Your task to perform on an android device: Open Wikipedia Image 0: 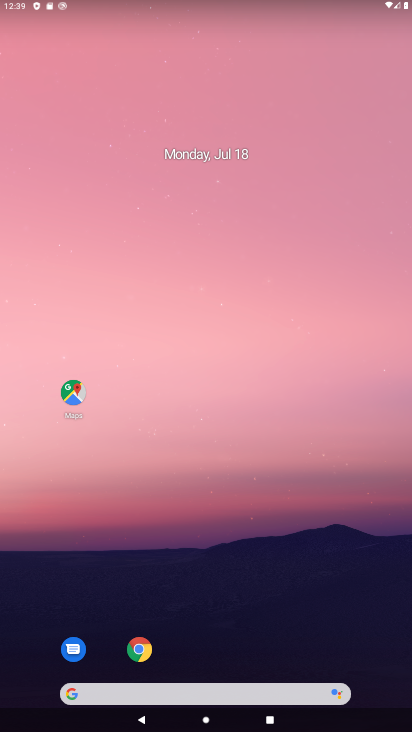
Step 0: drag from (37, 691) to (158, 91)
Your task to perform on an android device: Open Wikipedia Image 1: 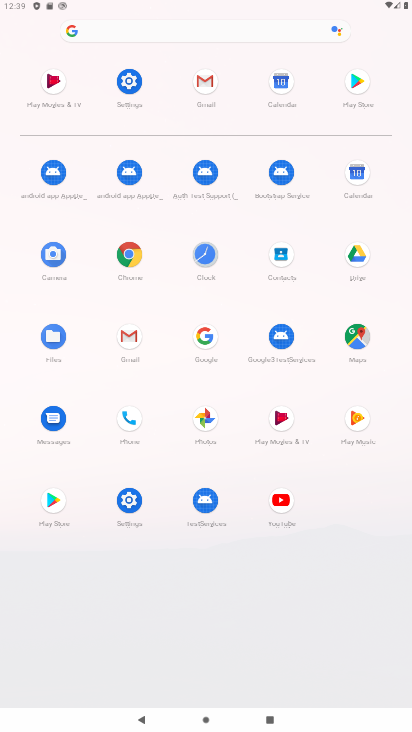
Step 1: click (128, 504)
Your task to perform on an android device: Open Wikipedia Image 2: 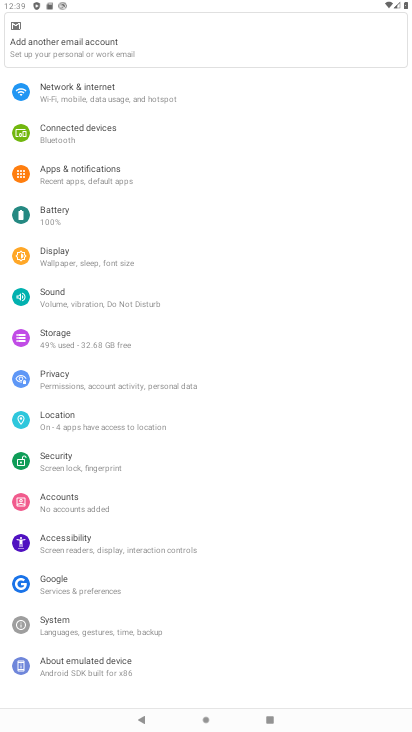
Step 2: press home button
Your task to perform on an android device: Open Wikipedia Image 3: 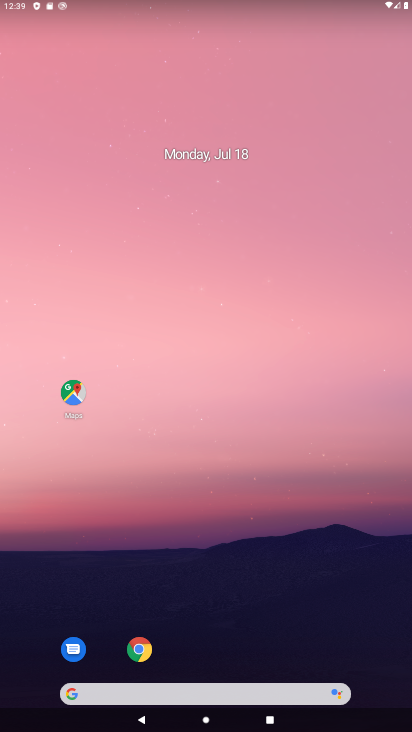
Step 3: click (144, 689)
Your task to perform on an android device: Open Wikipedia Image 4: 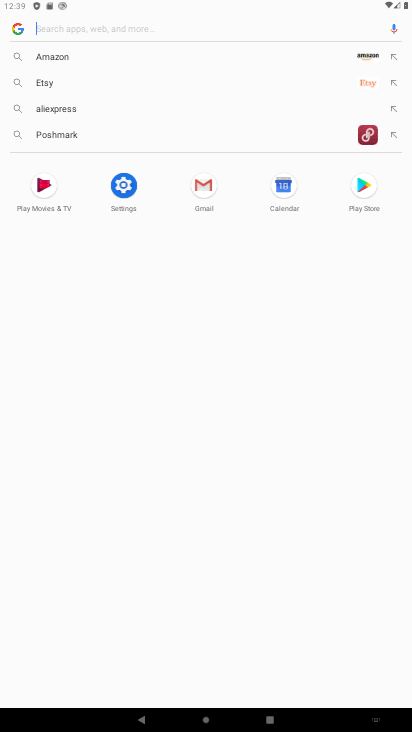
Step 4: type "Wikipedia"
Your task to perform on an android device: Open Wikipedia Image 5: 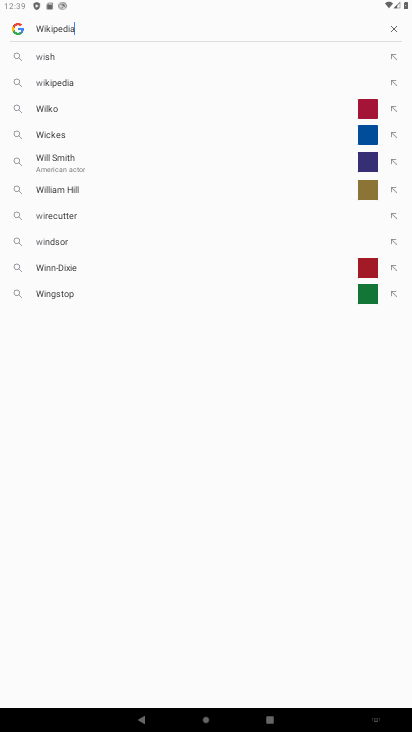
Step 5: type ""
Your task to perform on an android device: Open Wikipedia Image 6: 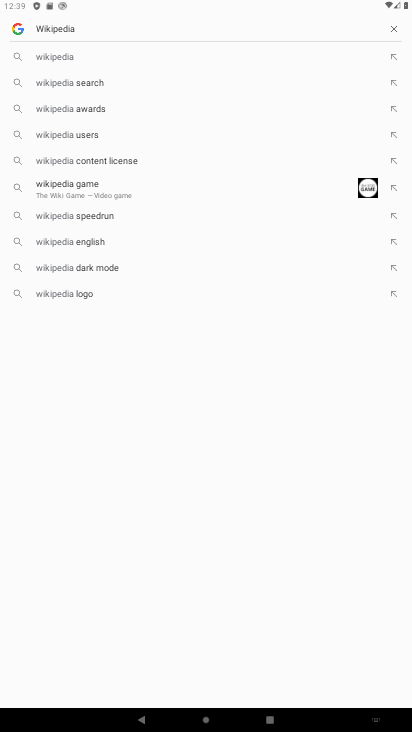
Step 6: click (43, 60)
Your task to perform on an android device: Open Wikipedia Image 7: 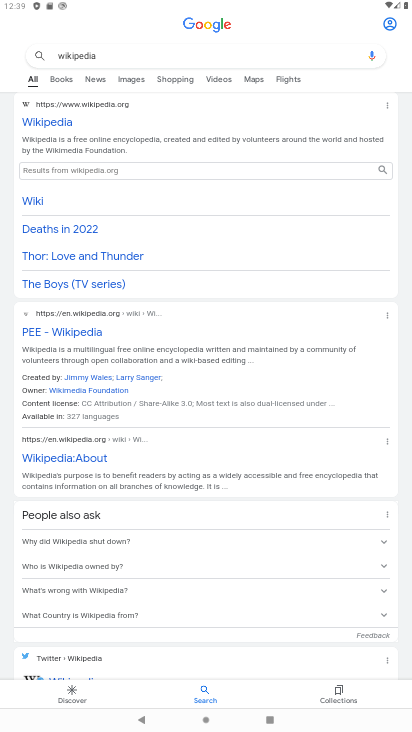
Step 7: task complete